Your task to perform on an android device: turn off javascript in the chrome app Image 0: 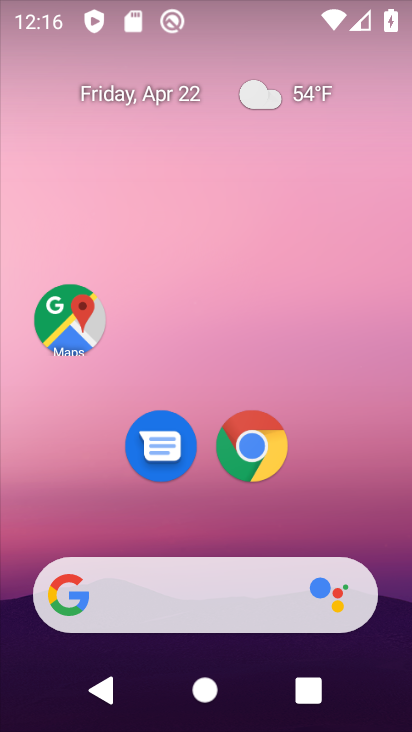
Step 0: click (266, 434)
Your task to perform on an android device: turn off javascript in the chrome app Image 1: 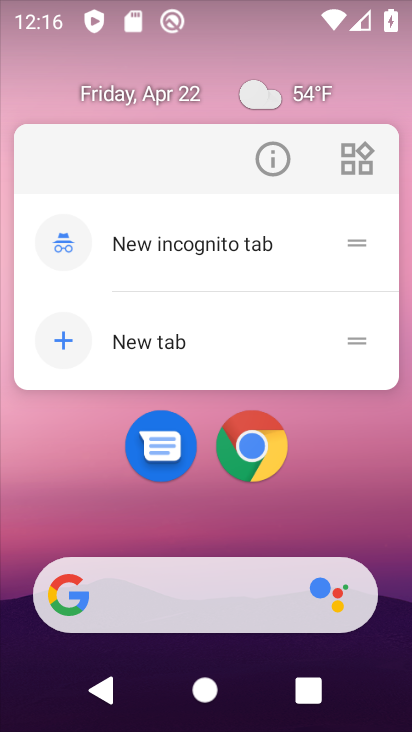
Step 1: click (266, 434)
Your task to perform on an android device: turn off javascript in the chrome app Image 2: 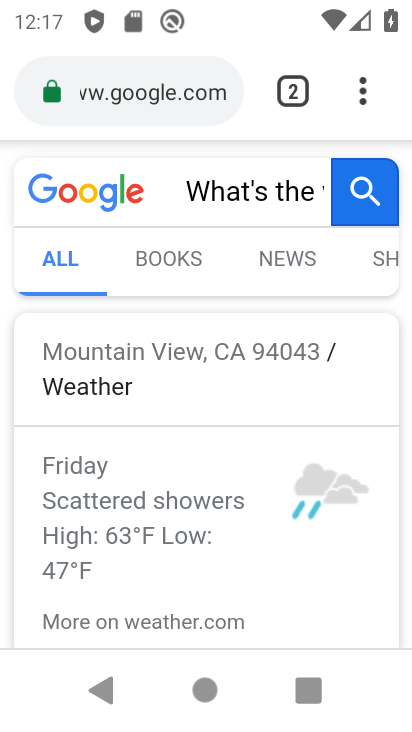
Step 2: drag from (371, 115) to (243, 487)
Your task to perform on an android device: turn off javascript in the chrome app Image 3: 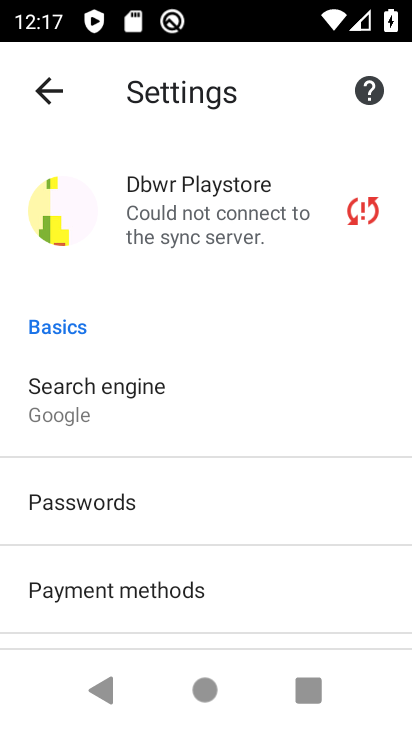
Step 3: drag from (245, 561) to (212, 40)
Your task to perform on an android device: turn off javascript in the chrome app Image 4: 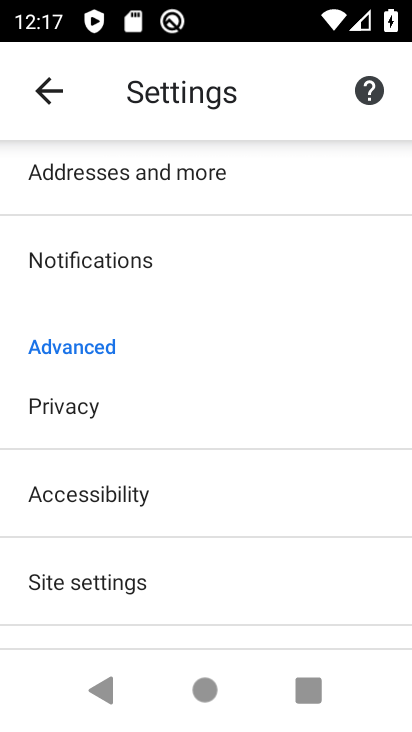
Step 4: click (287, 602)
Your task to perform on an android device: turn off javascript in the chrome app Image 5: 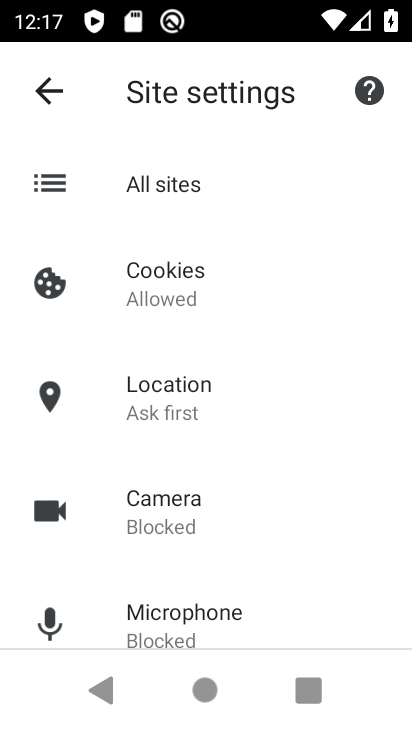
Step 5: drag from (287, 602) to (260, 113)
Your task to perform on an android device: turn off javascript in the chrome app Image 6: 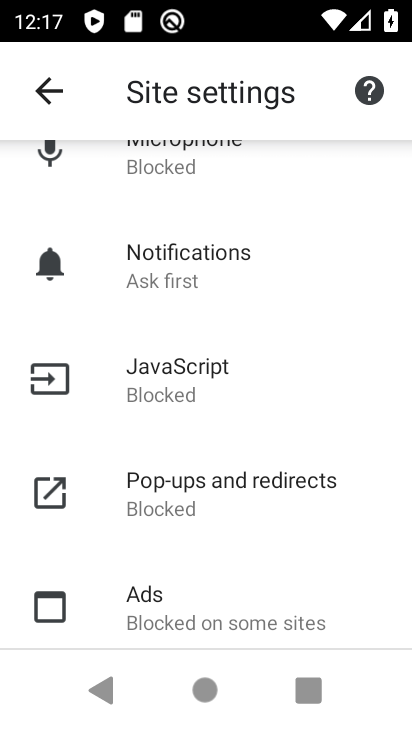
Step 6: click (265, 392)
Your task to perform on an android device: turn off javascript in the chrome app Image 7: 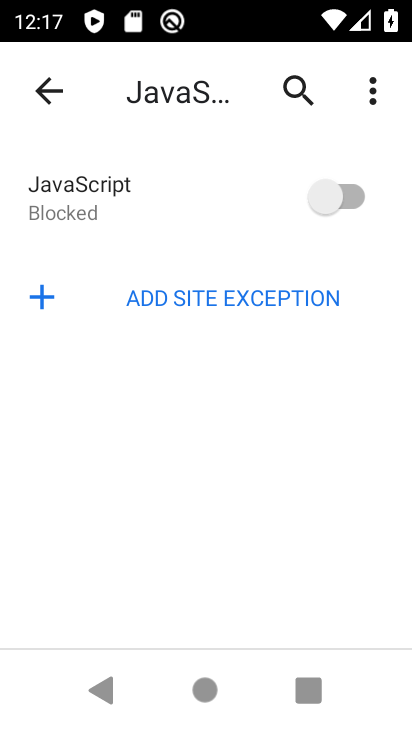
Step 7: task complete